Your task to perform on an android device: Open location settings Image 0: 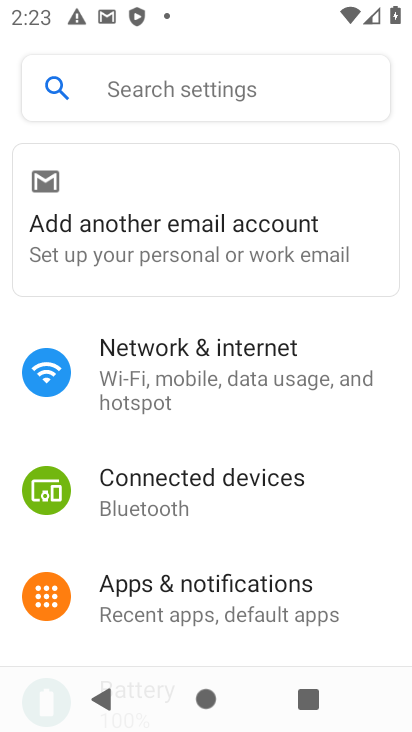
Step 0: drag from (251, 494) to (261, 184)
Your task to perform on an android device: Open location settings Image 1: 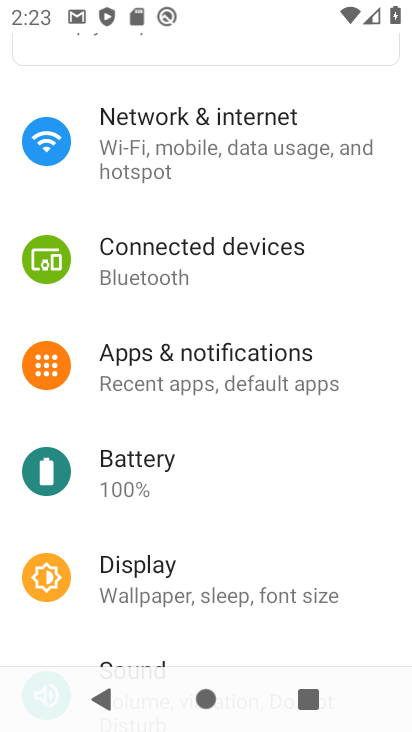
Step 1: drag from (181, 514) to (181, 313)
Your task to perform on an android device: Open location settings Image 2: 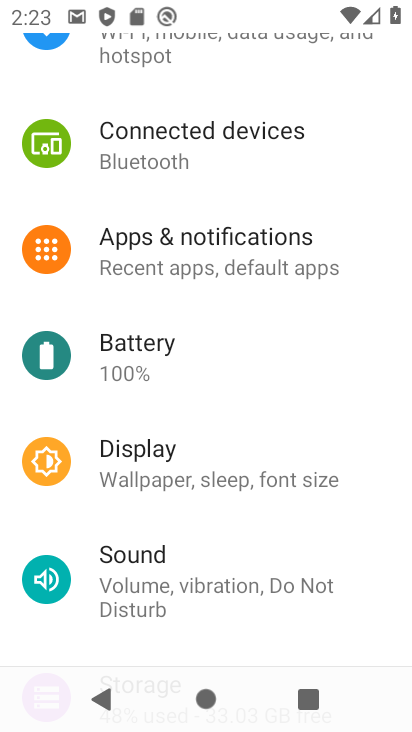
Step 2: drag from (191, 569) to (227, 144)
Your task to perform on an android device: Open location settings Image 3: 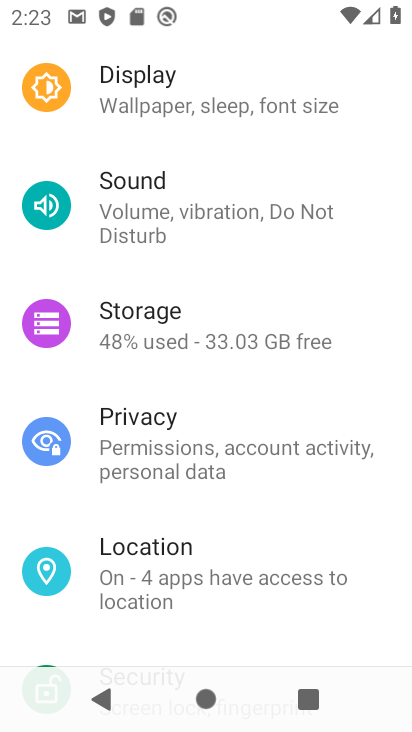
Step 3: click (172, 577)
Your task to perform on an android device: Open location settings Image 4: 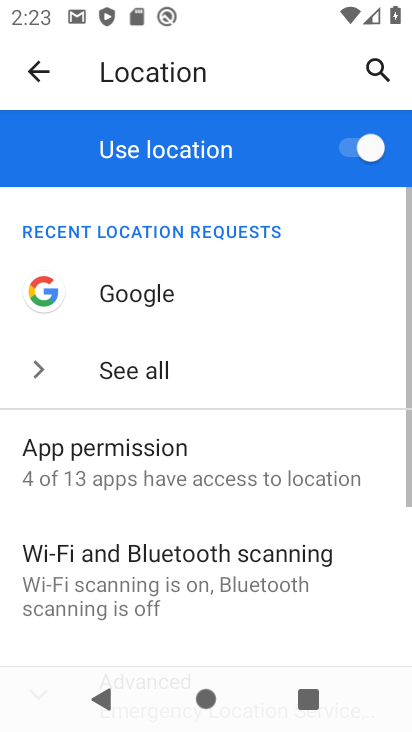
Step 4: task complete